Your task to perform on an android device: Toggle the flashlight Image 0: 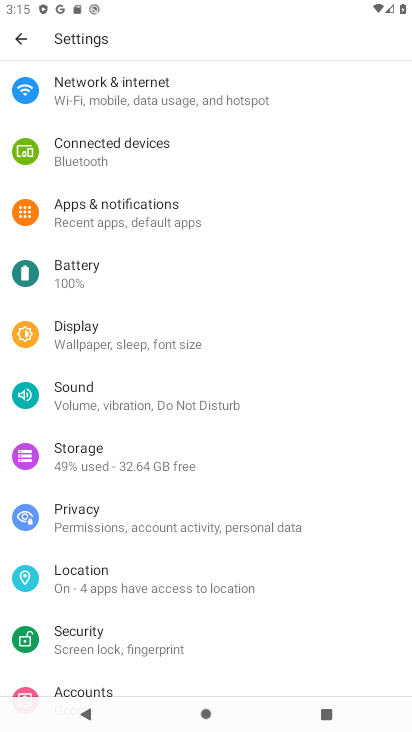
Step 0: task complete